Your task to perform on an android device: turn on improve location accuracy Image 0: 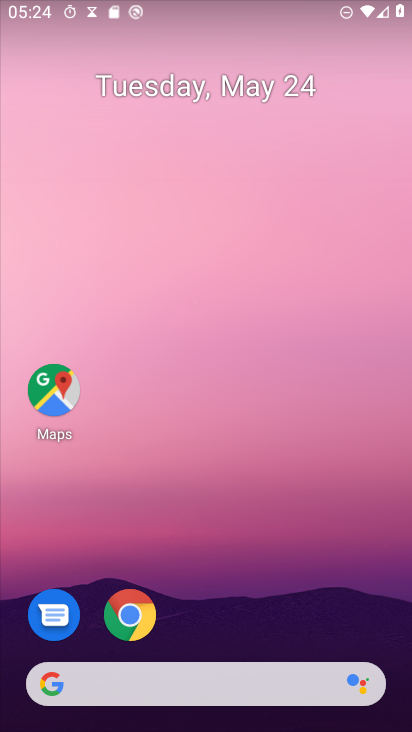
Step 0: drag from (221, 615) to (277, 110)
Your task to perform on an android device: turn on improve location accuracy Image 1: 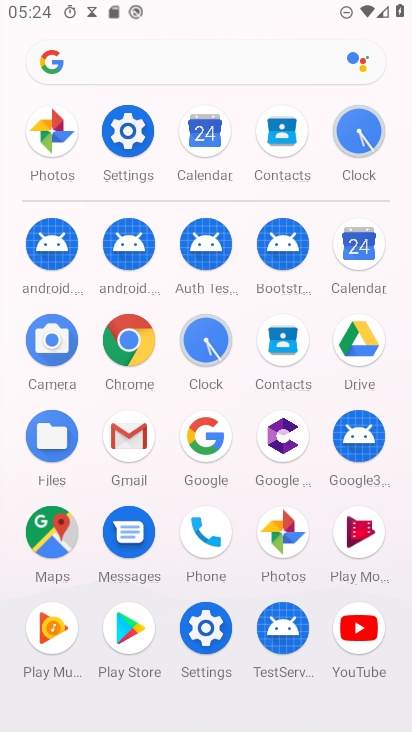
Step 1: click (121, 131)
Your task to perform on an android device: turn on improve location accuracy Image 2: 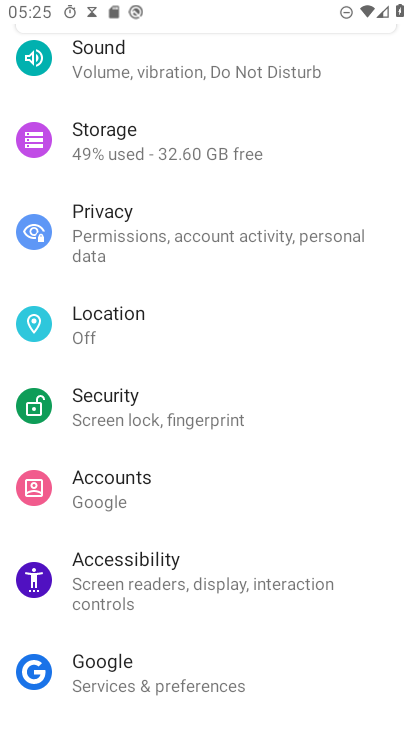
Step 2: click (139, 319)
Your task to perform on an android device: turn on improve location accuracy Image 3: 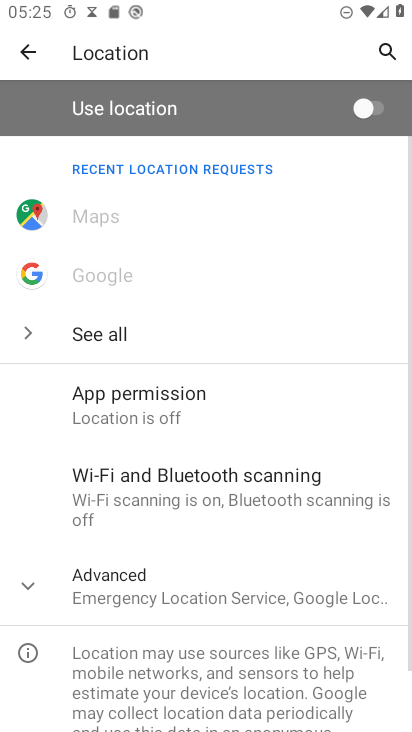
Step 3: click (125, 580)
Your task to perform on an android device: turn on improve location accuracy Image 4: 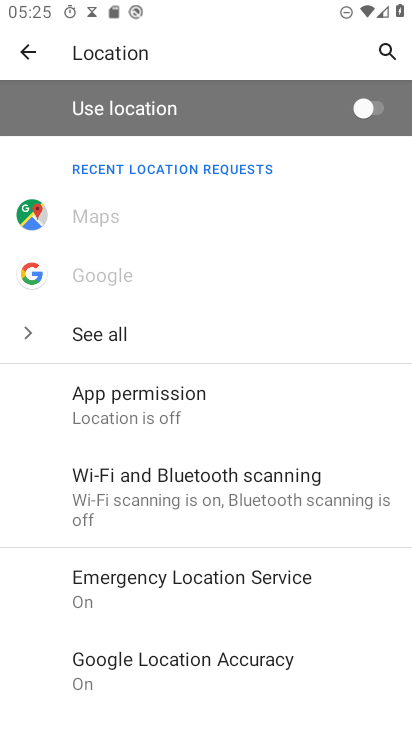
Step 4: click (171, 663)
Your task to perform on an android device: turn on improve location accuracy Image 5: 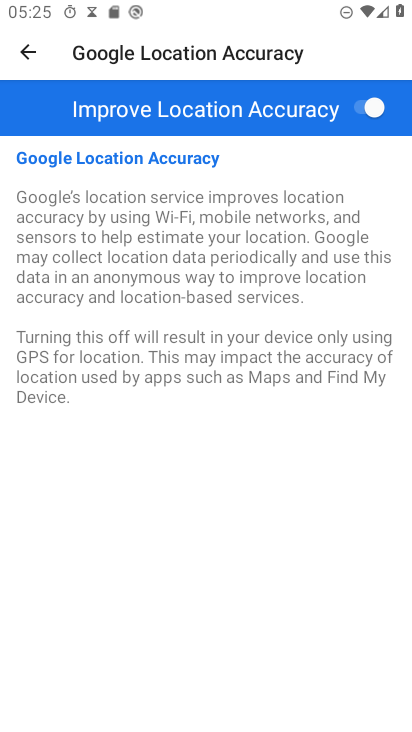
Step 5: task complete